Your task to perform on an android device: Open privacy settings Image 0: 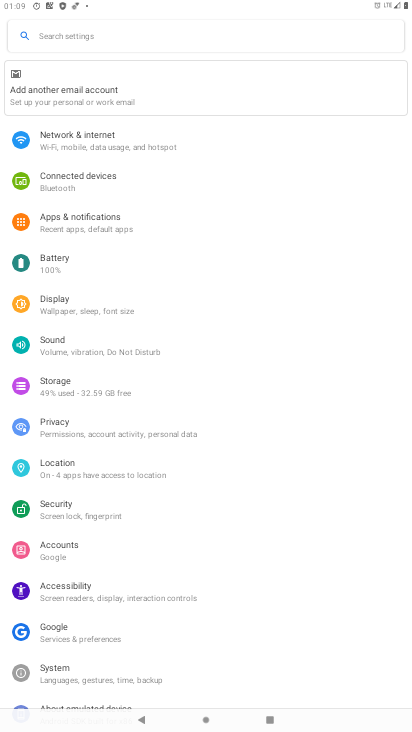
Step 0: click (51, 427)
Your task to perform on an android device: Open privacy settings Image 1: 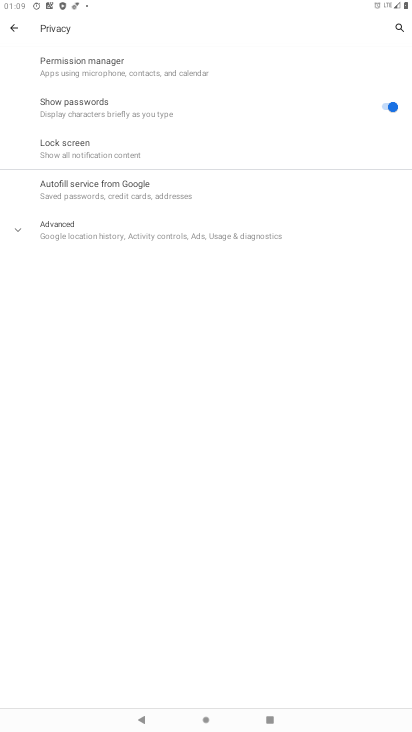
Step 1: task complete